Your task to perform on an android device: Open the web browser Image 0: 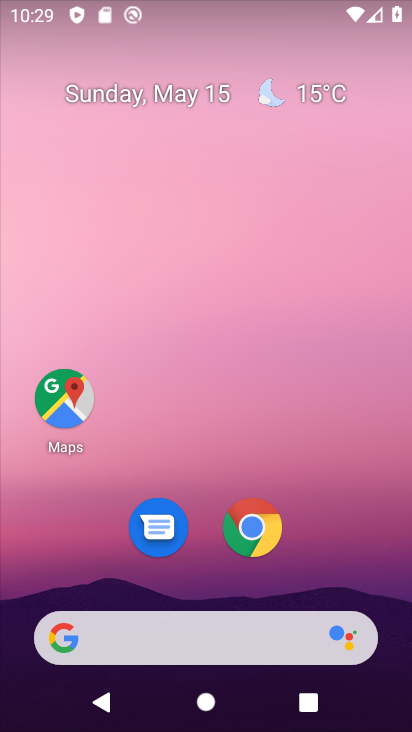
Step 0: click (240, 536)
Your task to perform on an android device: Open the web browser Image 1: 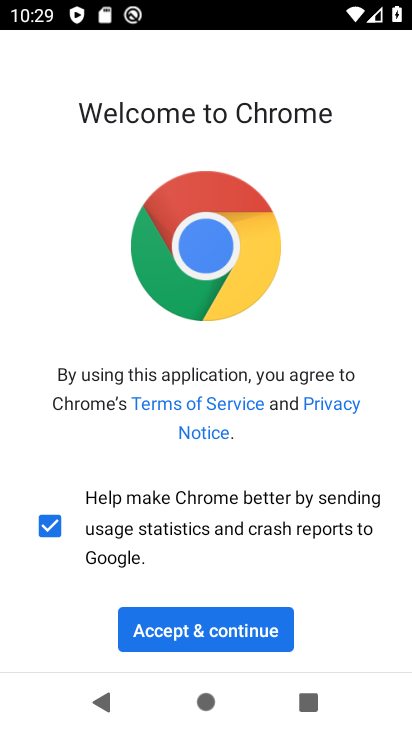
Step 1: click (203, 626)
Your task to perform on an android device: Open the web browser Image 2: 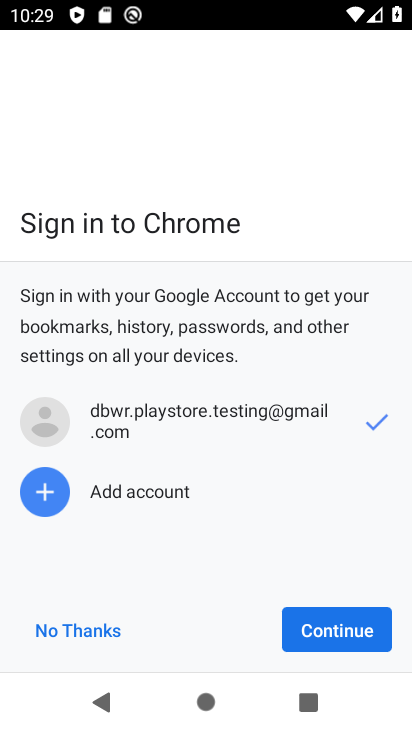
Step 2: click (330, 627)
Your task to perform on an android device: Open the web browser Image 3: 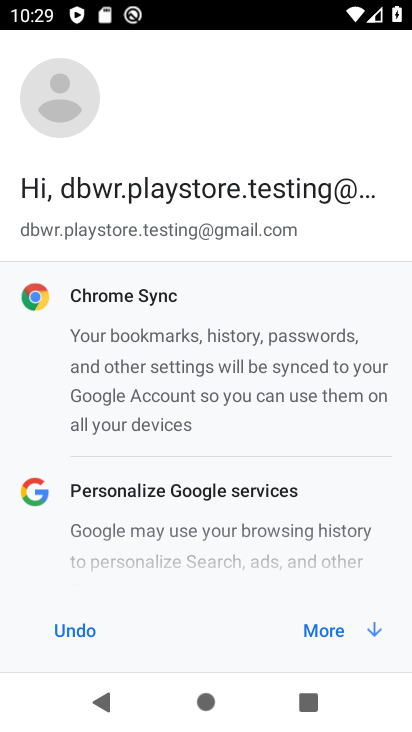
Step 3: task complete